Your task to perform on an android device: What is the news today? Image 0: 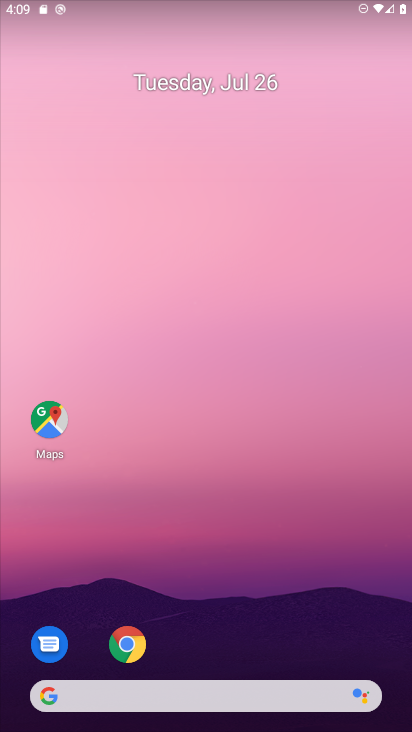
Step 0: drag from (5, 307) to (392, 325)
Your task to perform on an android device: What is the news today? Image 1: 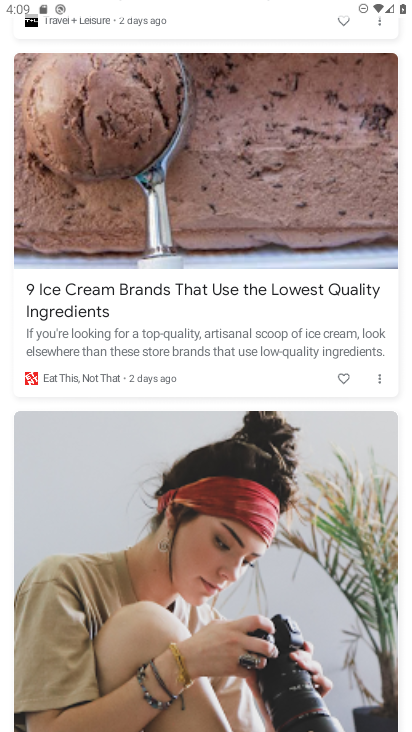
Step 1: task complete